Your task to perform on an android device: Open Youtube and go to the subscriptions tab Image 0: 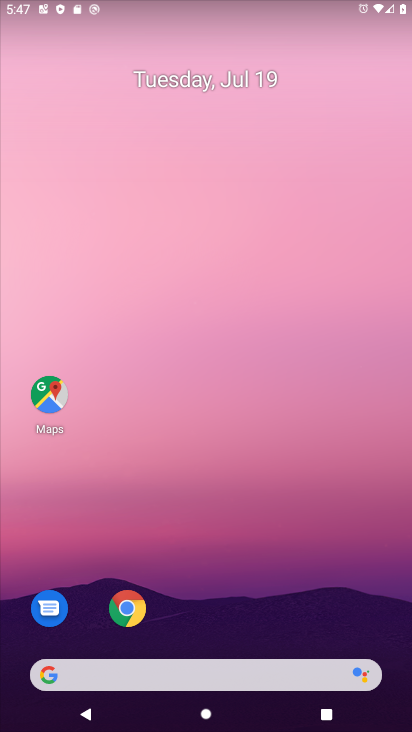
Step 0: drag from (292, 686) to (284, 28)
Your task to perform on an android device: Open Youtube and go to the subscriptions tab Image 1: 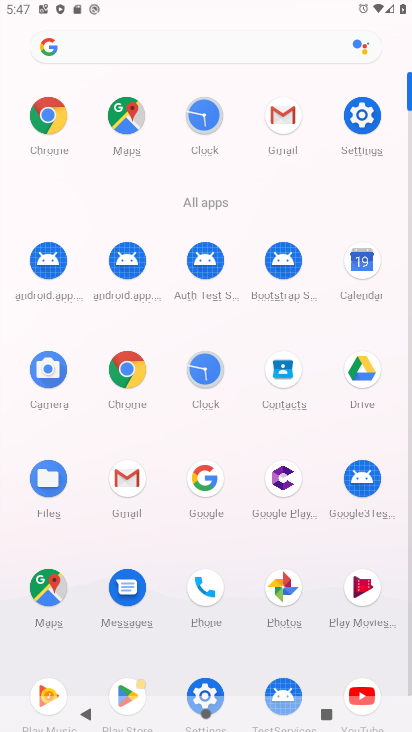
Step 1: click (360, 692)
Your task to perform on an android device: Open Youtube and go to the subscriptions tab Image 2: 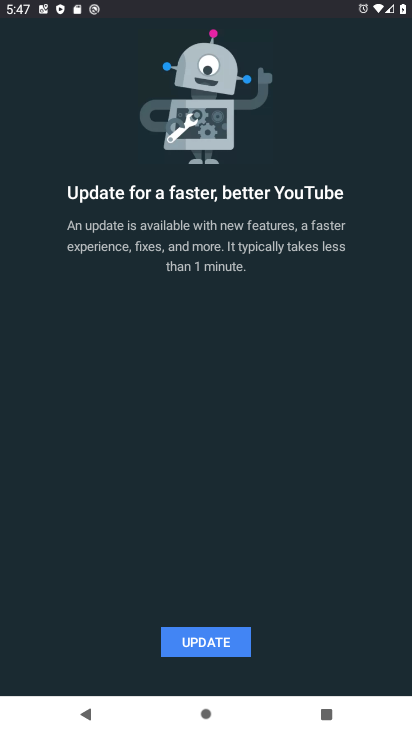
Step 2: click (196, 641)
Your task to perform on an android device: Open Youtube and go to the subscriptions tab Image 3: 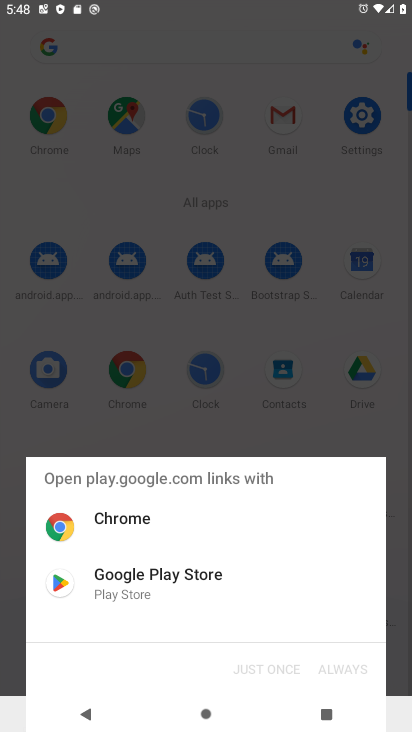
Step 3: click (142, 599)
Your task to perform on an android device: Open Youtube and go to the subscriptions tab Image 4: 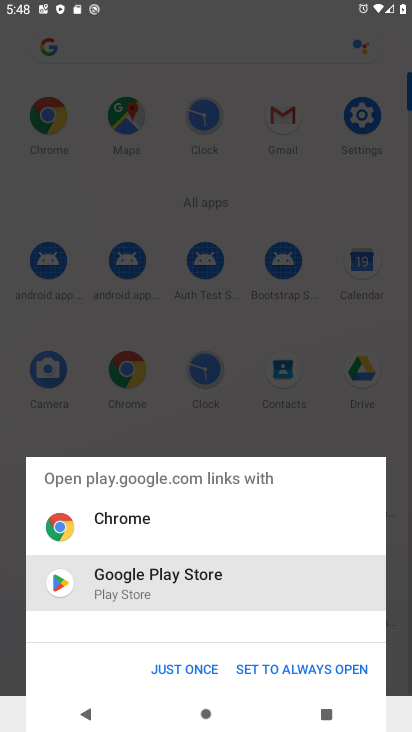
Step 4: click (180, 670)
Your task to perform on an android device: Open Youtube and go to the subscriptions tab Image 5: 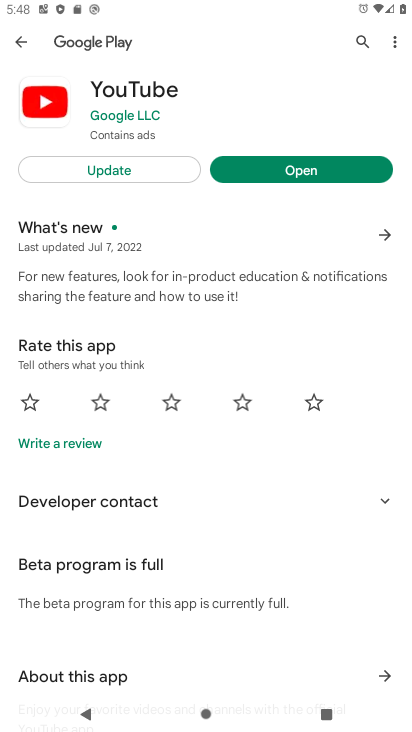
Step 5: click (135, 168)
Your task to perform on an android device: Open Youtube and go to the subscriptions tab Image 6: 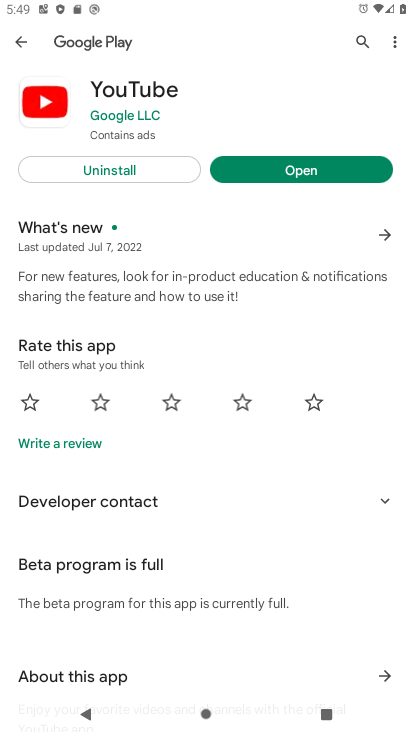
Step 6: click (340, 180)
Your task to perform on an android device: Open Youtube and go to the subscriptions tab Image 7: 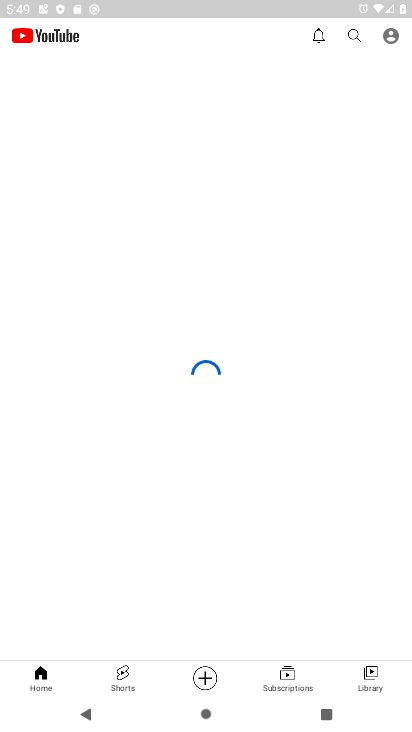
Step 7: click (289, 678)
Your task to perform on an android device: Open Youtube and go to the subscriptions tab Image 8: 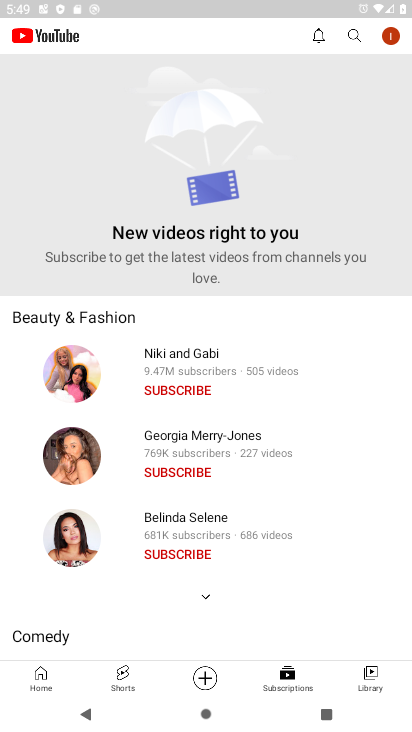
Step 8: task complete